Your task to perform on an android device: What is the news today? Image 0: 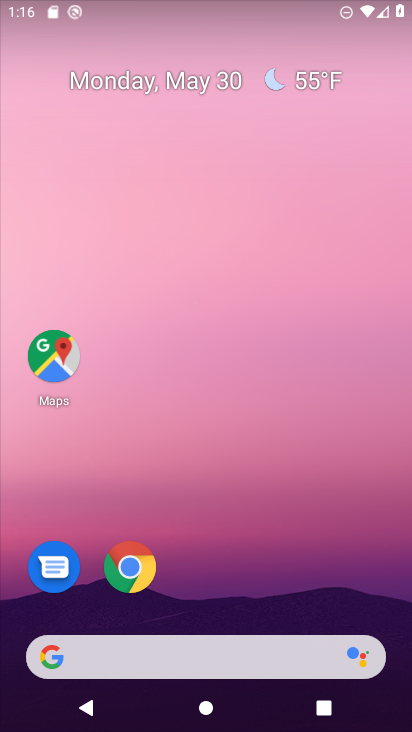
Step 0: drag from (7, 268) to (397, 272)
Your task to perform on an android device: What is the news today? Image 1: 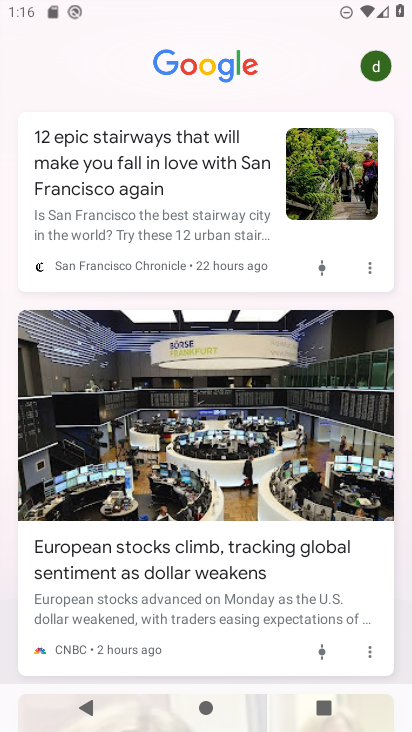
Step 1: task complete